Your task to perform on an android device: Open sound settings Image 0: 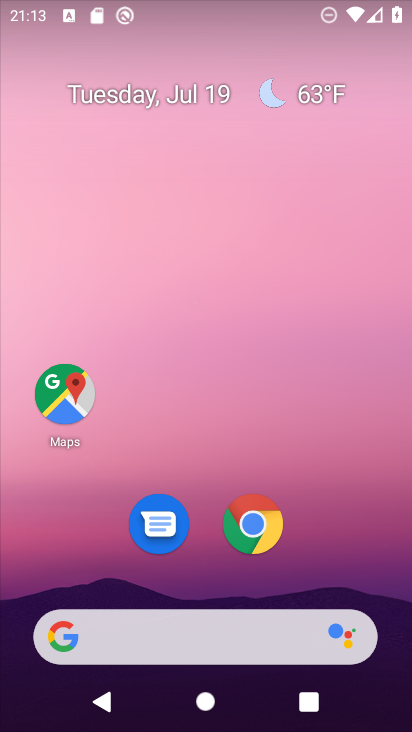
Step 0: drag from (328, 540) to (294, 42)
Your task to perform on an android device: Open sound settings Image 1: 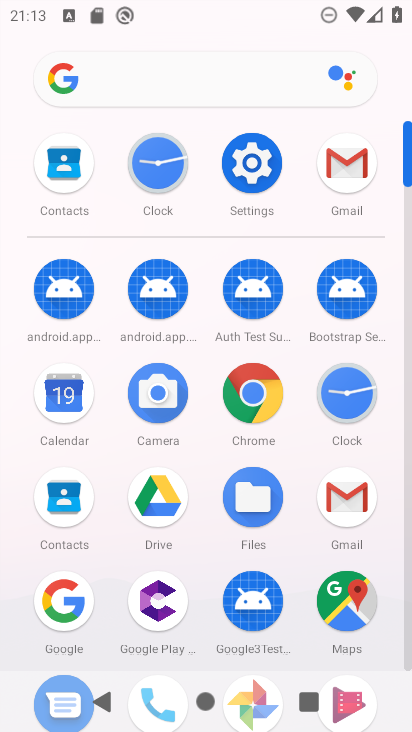
Step 1: click (246, 164)
Your task to perform on an android device: Open sound settings Image 2: 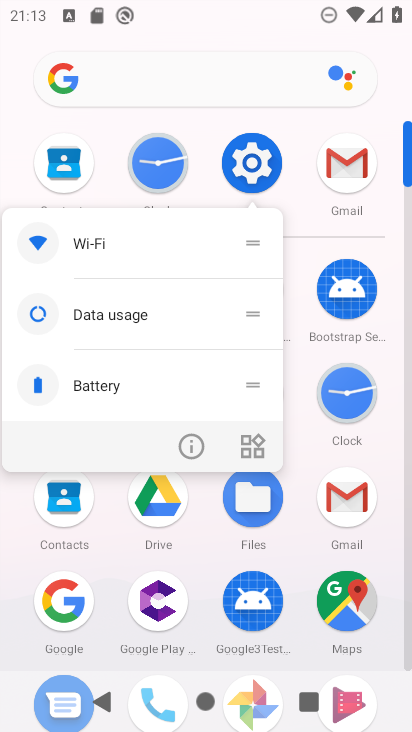
Step 2: click (246, 162)
Your task to perform on an android device: Open sound settings Image 3: 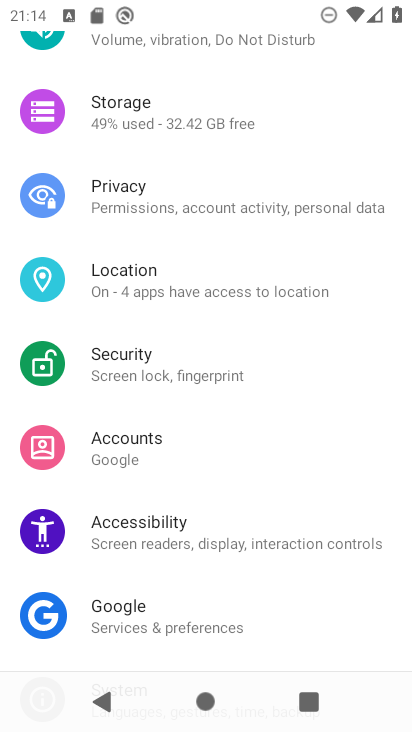
Step 3: drag from (264, 154) to (200, 594)
Your task to perform on an android device: Open sound settings Image 4: 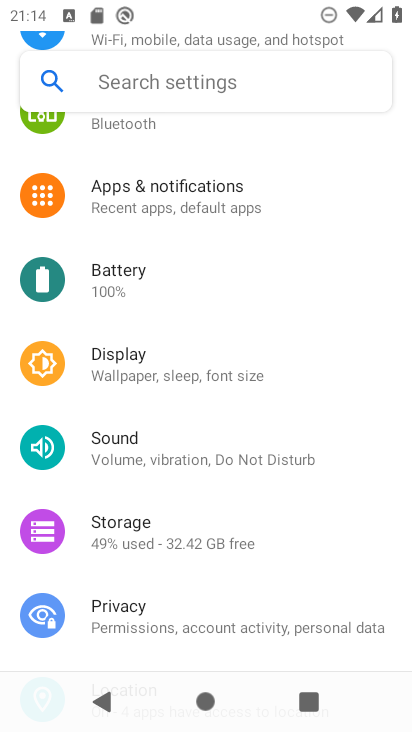
Step 4: click (199, 521)
Your task to perform on an android device: Open sound settings Image 5: 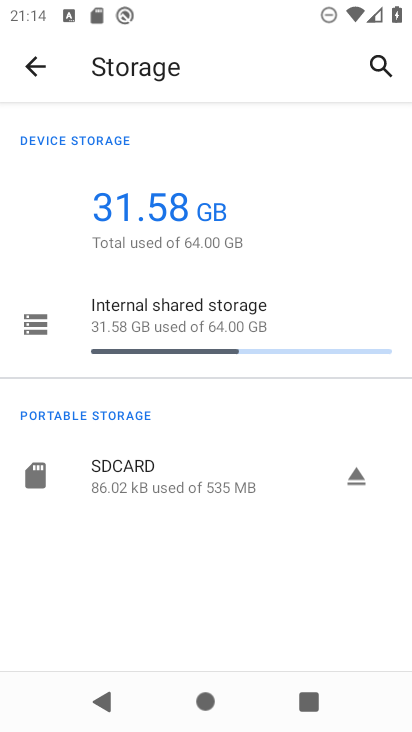
Step 5: click (37, 62)
Your task to perform on an android device: Open sound settings Image 6: 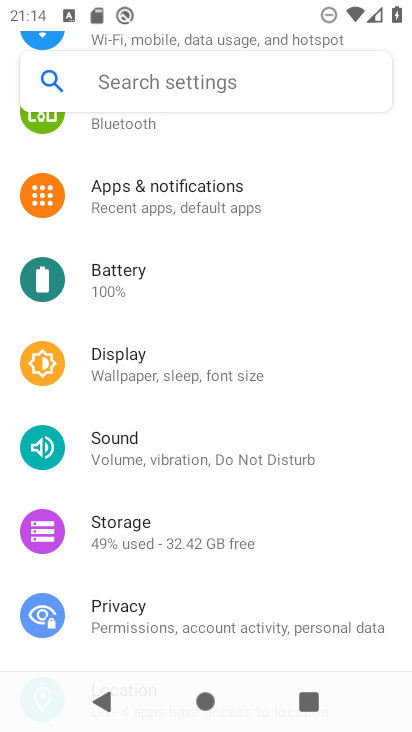
Step 6: click (175, 448)
Your task to perform on an android device: Open sound settings Image 7: 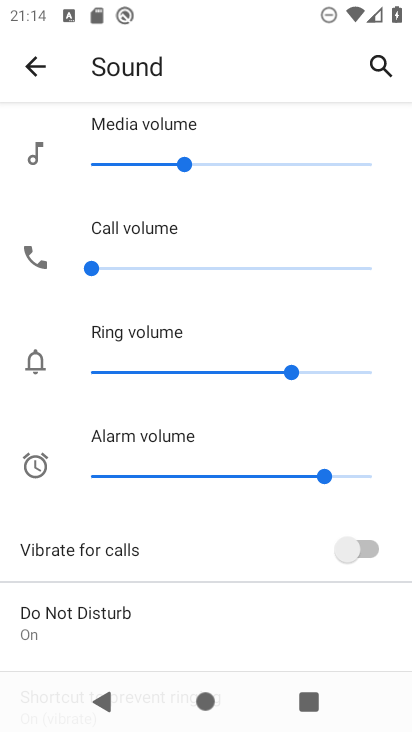
Step 7: task complete